Your task to perform on an android device: open a bookmark in the chrome app Image 0: 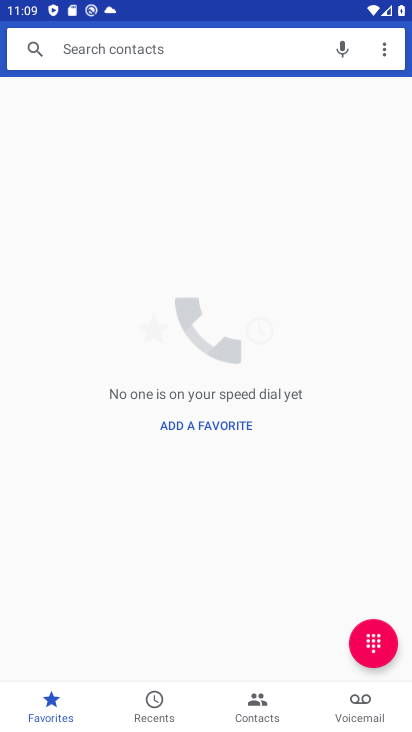
Step 0: press home button
Your task to perform on an android device: open a bookmark in the chrome app Image 1: 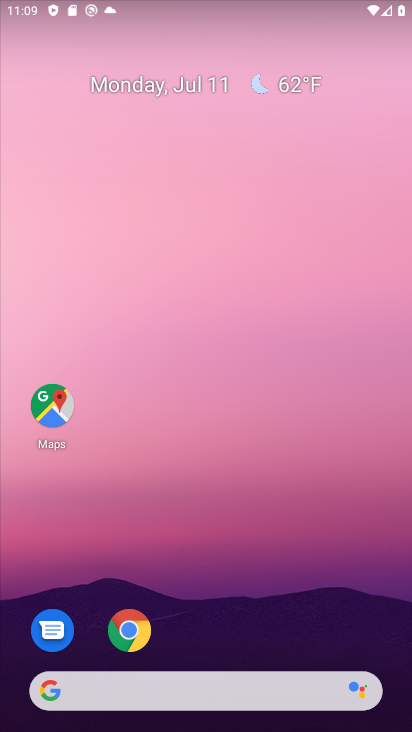
Step 1: drag from (208, 702) to (353, 7)
Your task to perform on an android device: open a bookmark in the chrome app Image 2: 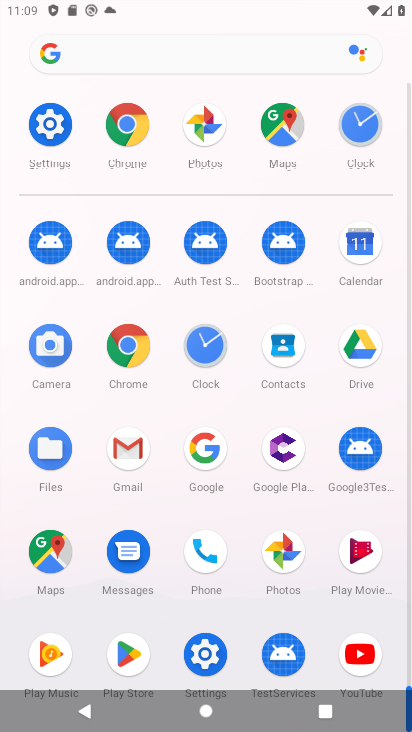
Step 2: click (142, 340)
Your task to perform on an android device: open a bookmark in the chrome app Image 3: 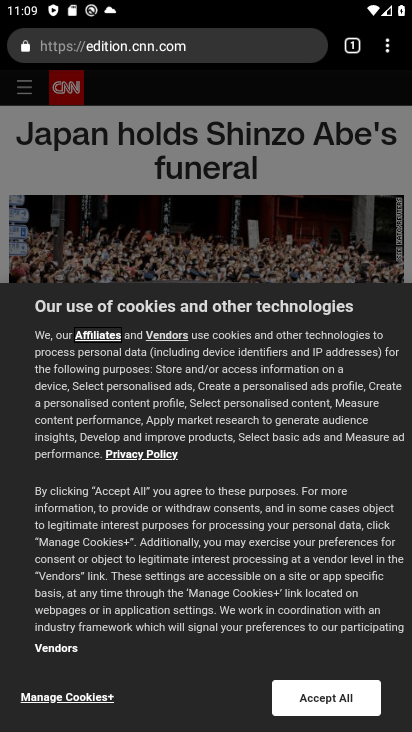
Step 3: task complete